Your task to perform on an android device: change your default location settings in chrome Image 0: 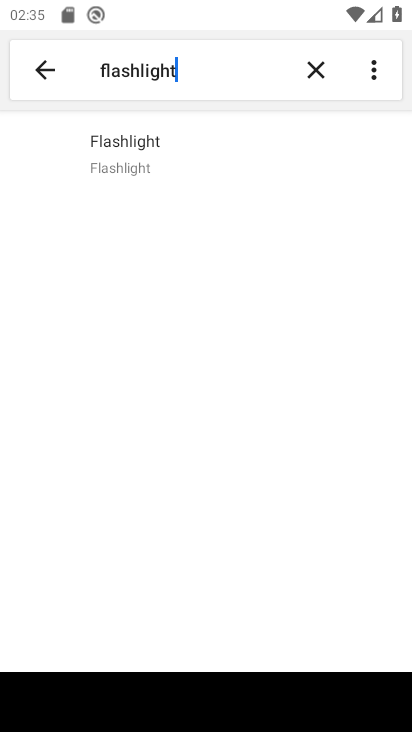
Step 0: press home button
Your task to perform on an android device: change your default location settings in chrome Image 1: 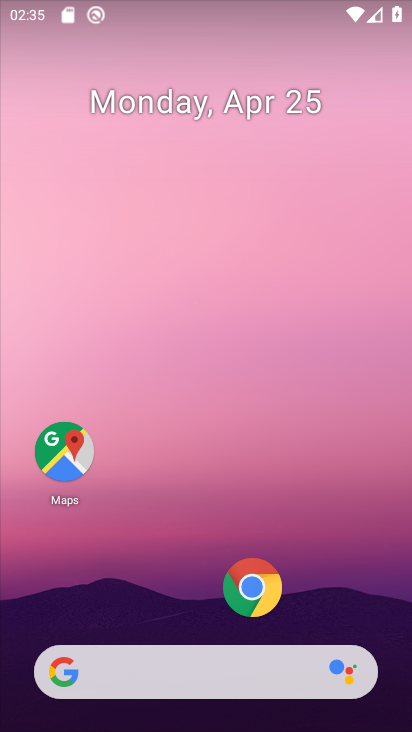
Step 1: click (251, 576)
Your task to perform on an android device: change your default location settings in chrome Image 2: 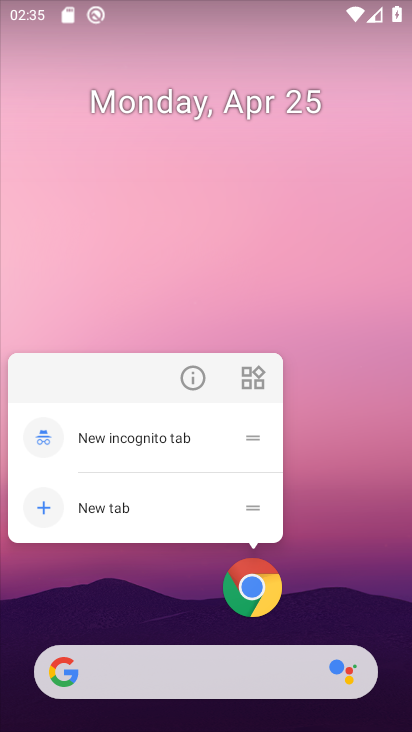
Step 2: click (251, 584)
Your task to perform on an android device: change your default location settings in chrome Image 3: 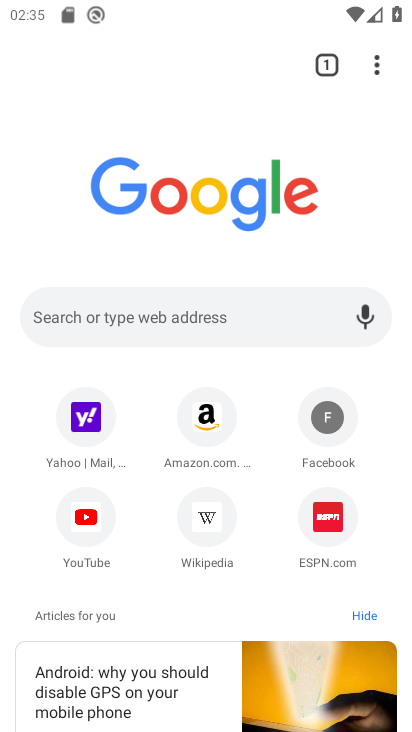
Step 3: click (374, 62)
Your task to perform on an android device: change your default location settings in chrome Image 4: 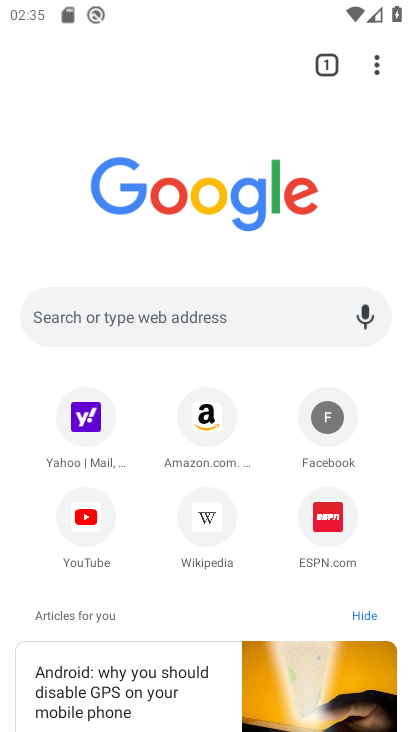
Step 4: click (380, 58)
Your task to perform on an android device: change your default location settings in chrome Image 5: 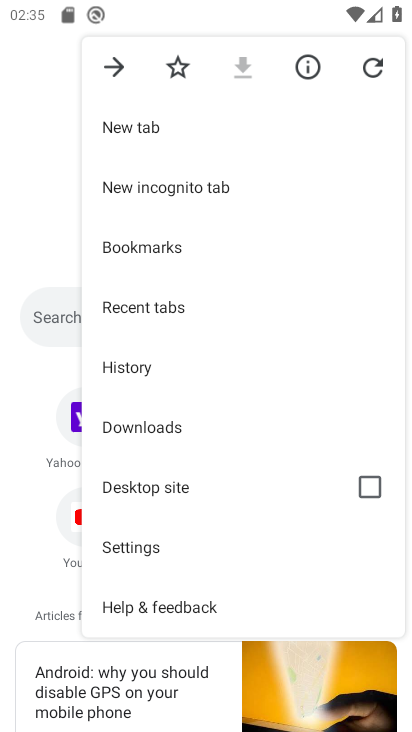
Step 5: click (167, 543)
Your task to perform on an android device: change your default location settings in chrome Image 6: 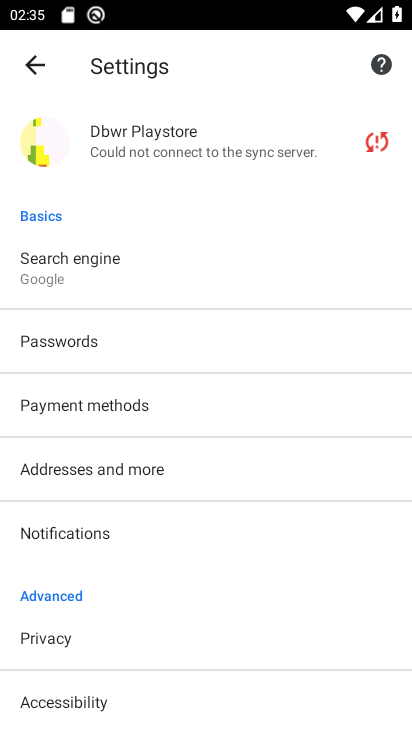
Step 6: drag from (159, 669) to (149, 227)
Your task to perform on an android device: change your default location settings in chrome Image 7: 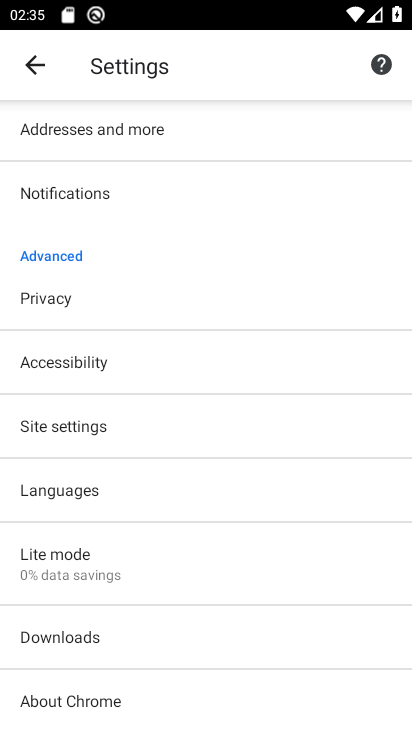
Step 7: click (127, 417)
Your task to perform on an android device: change your default location settings in chrome Image 8: 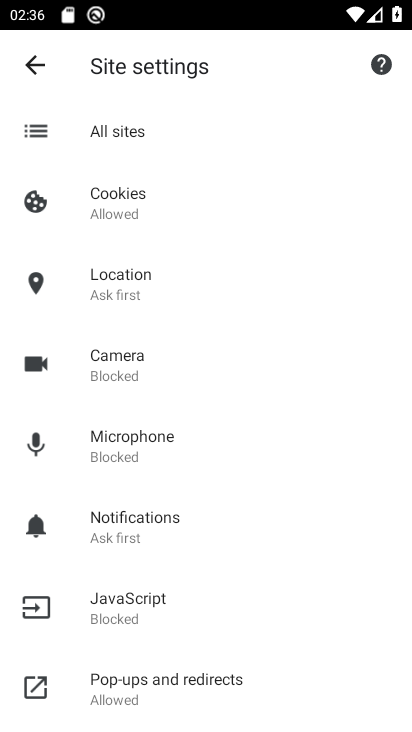
Step 8: click (171, 278)
Your task to perform on an android device: change your default location settings in chrome Image 9: 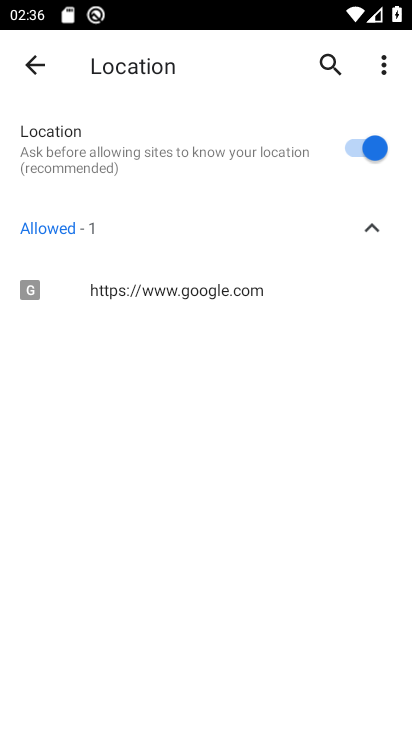
Step 9: click (357, 146)
Your task to perform on an android device: change your default location settings in chrome Image 10: 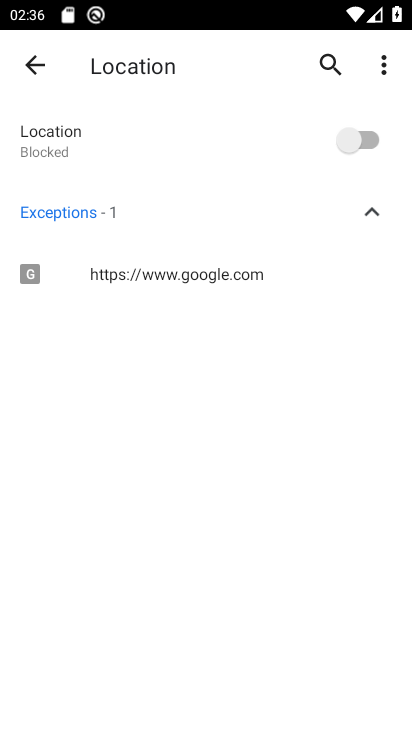
Step 10: task complete